Your task to perform on an android device: Do I have any events tomorrow? Image 0: 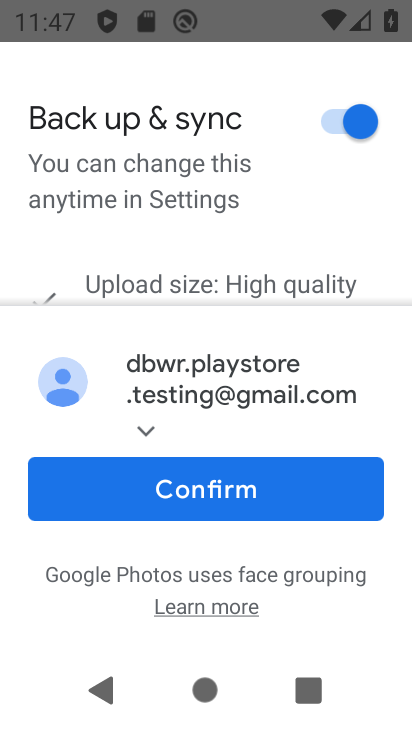
Step 0: press home button
Your task to perform on an android device: Do I have any events tomorrow? Image 1: 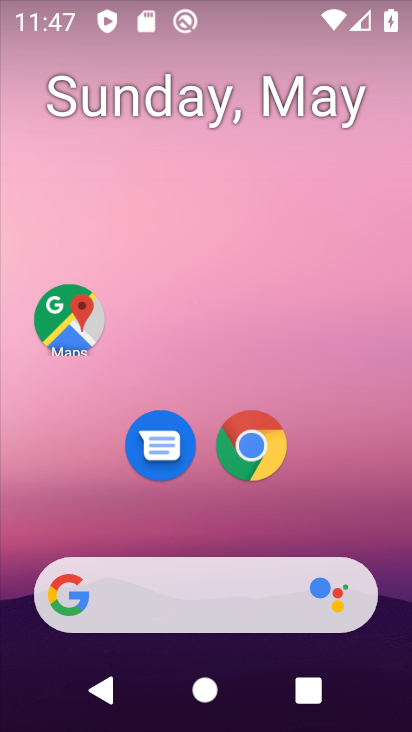
Step 1: drag from (343, 504) to (317, 39)
Your task to perform on an android device: Do I have any events tomorrow? Image 2: 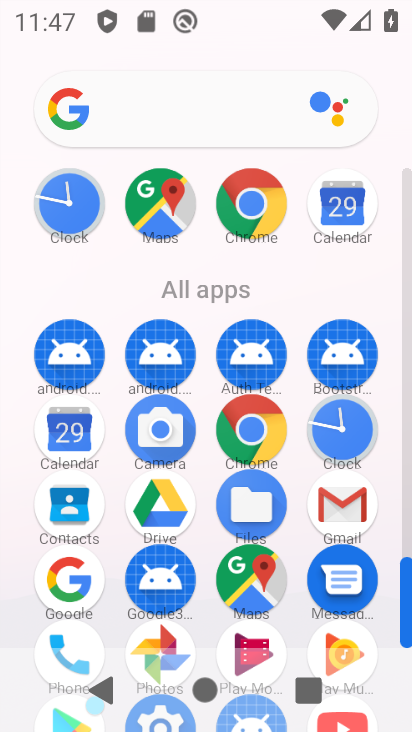
Step 2: click (62, 422)
Your task to perform on an android device: Do I have any events tomorrow? Image 3: 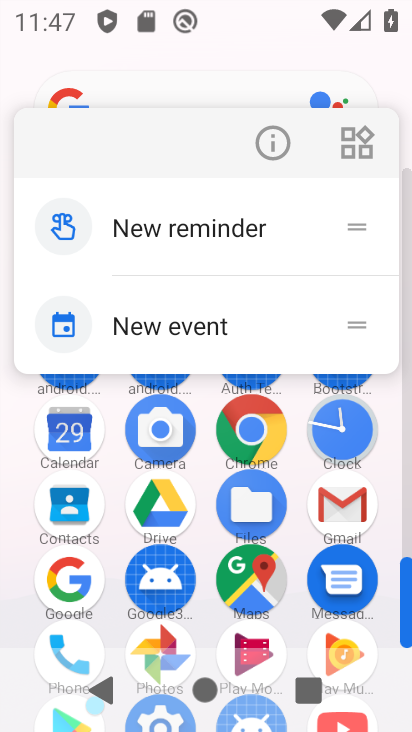
Step 3: click (64, 426)
Your task to perform on an android device: Do I have any events tomorrow? Image 4: 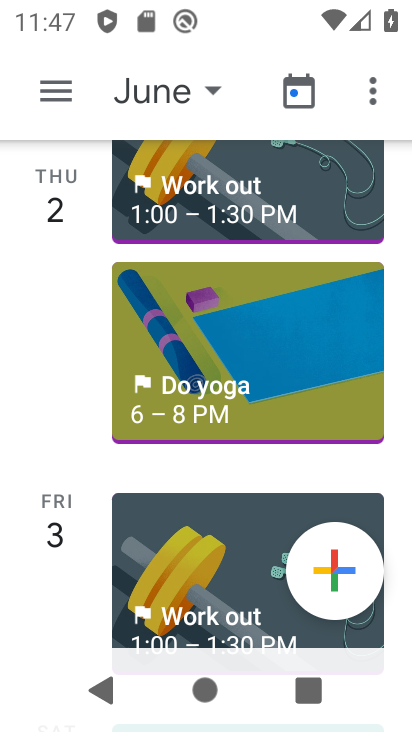
Step 4: click (179, 103)
Your task to perform on an android device: Do I have any events tomorrow? Image 5: 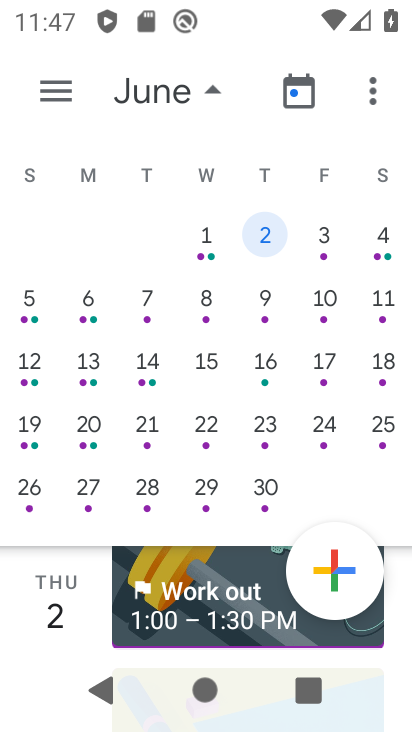
Step 5: drag from (42, 276) to (369, 224)
Your task to perform on an android device: Do I have any events tomorrow? Image 6: 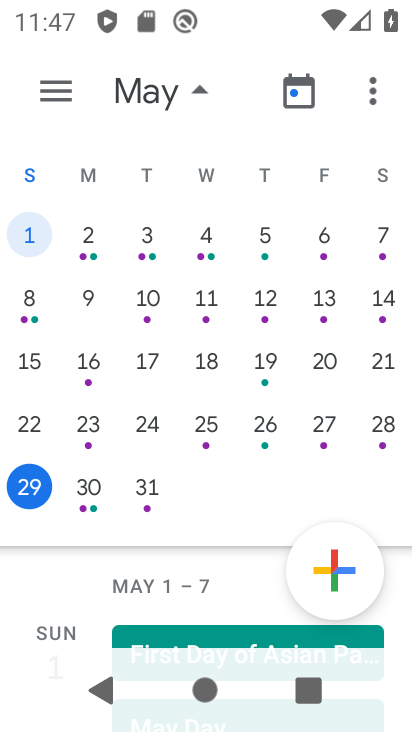
Step 6: click (139, 497)
Your task to perform on an android device: Do I have any events tomorrow? Image 7: 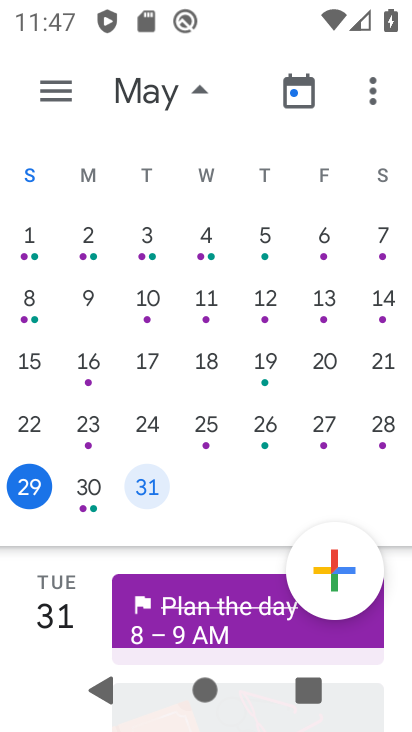
Step 7: task complete